Your task to perform on an android device: open app "Skype" Image 0: 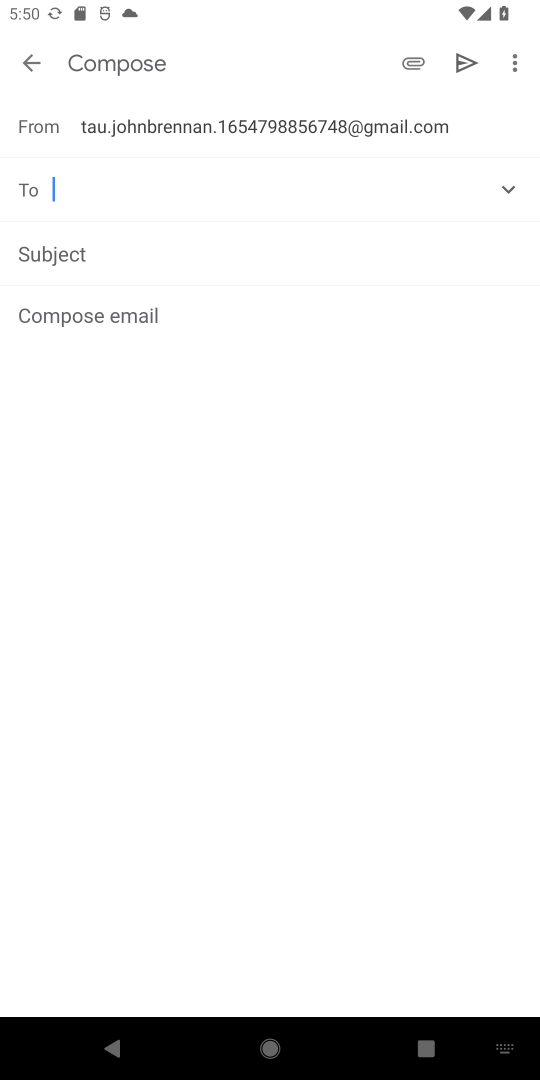
Step 0: press home button
Your task to perform on an android device: open app "Skype" Image 1: 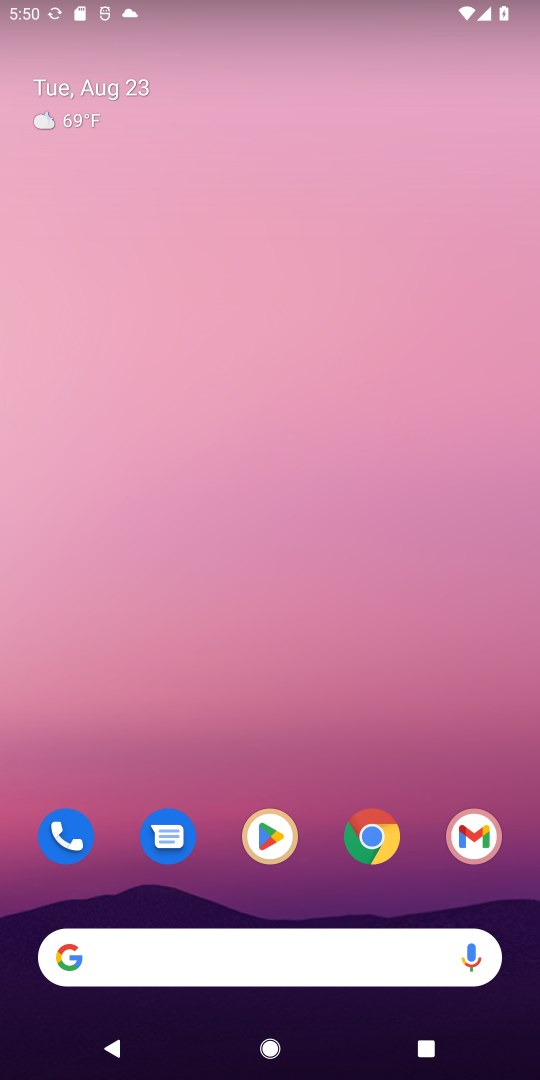
Step 1: click (271, 835)
Your task to perform on an android device: open app "Skype" Image 2: 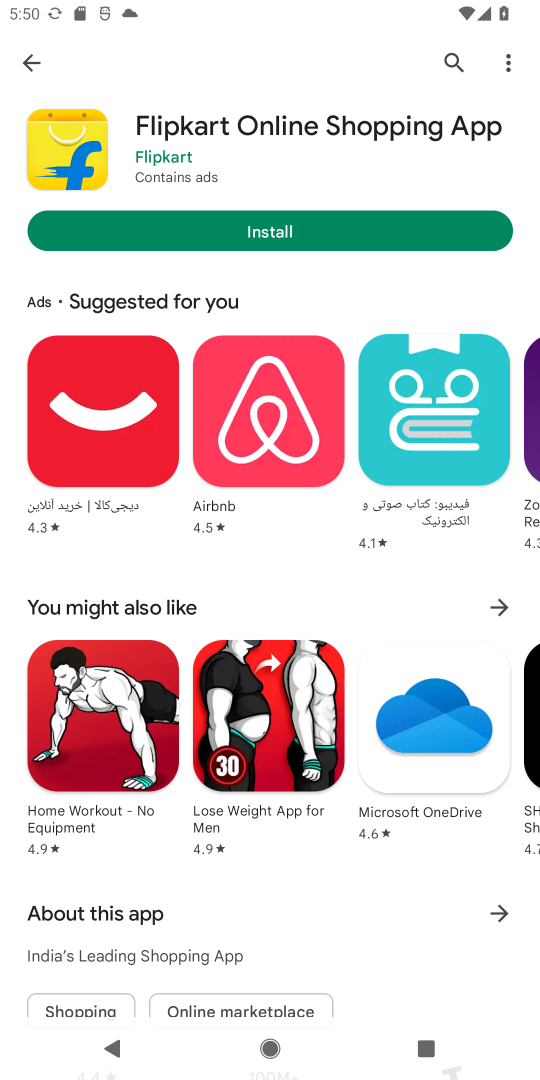
Step 2: click (448, 53)
Your task to perform on an android device: open app "Skype" Image 3: 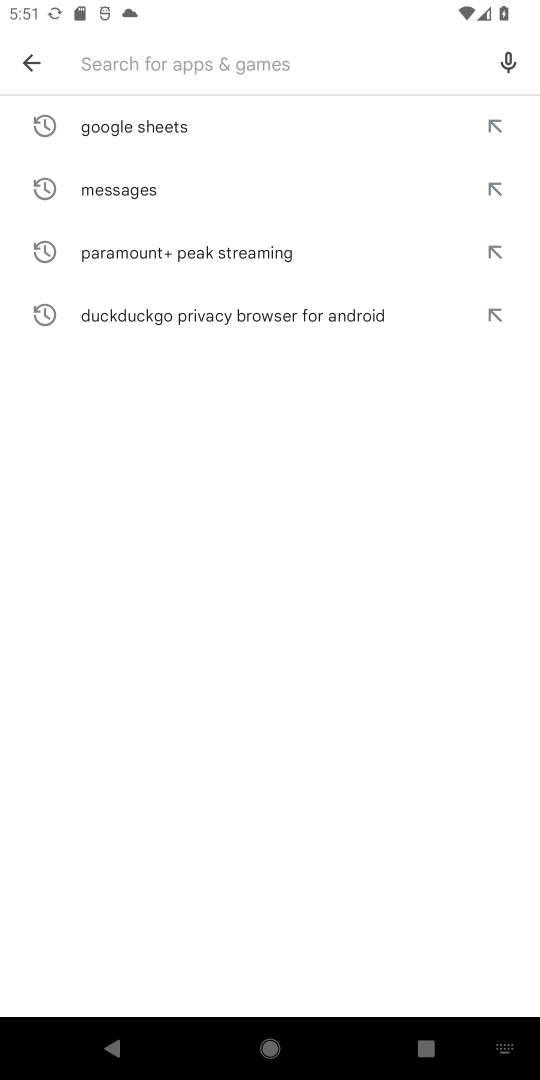
Step 3: type "Skype"
Your task to perform on an android device: open app "Skype" Image 4: 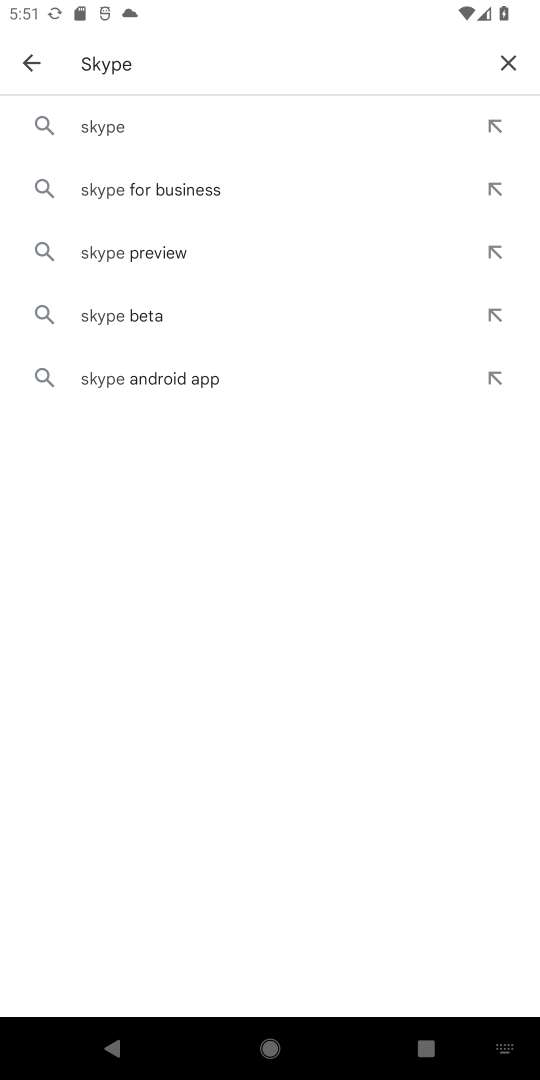
Step 4: click (105, 122)
Your task to perform on an android device: open app "Skype" Image 5: 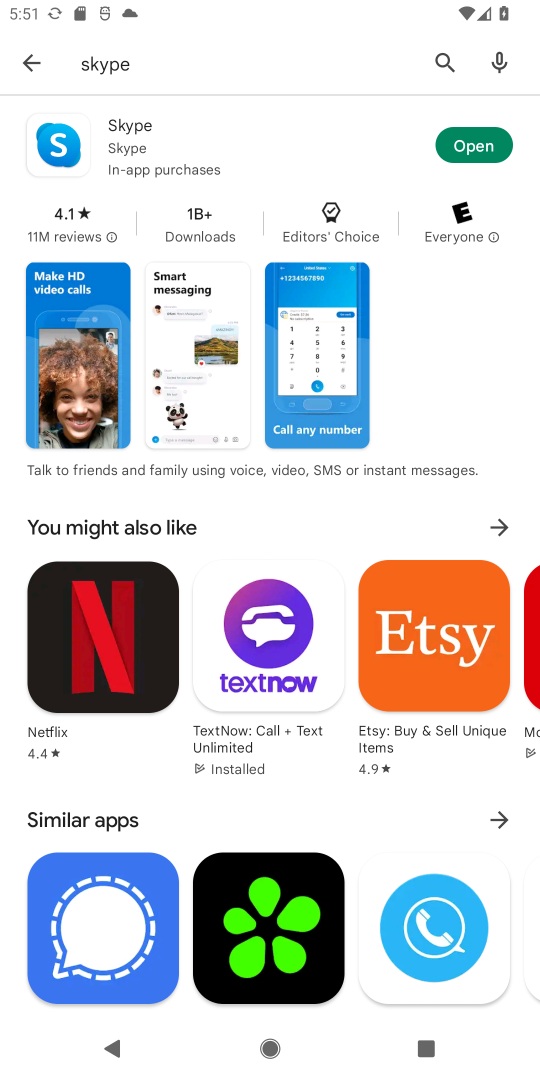
Step 5: click (474, 140)
Your task to perform on an android device: open app "Skype" Image 6: 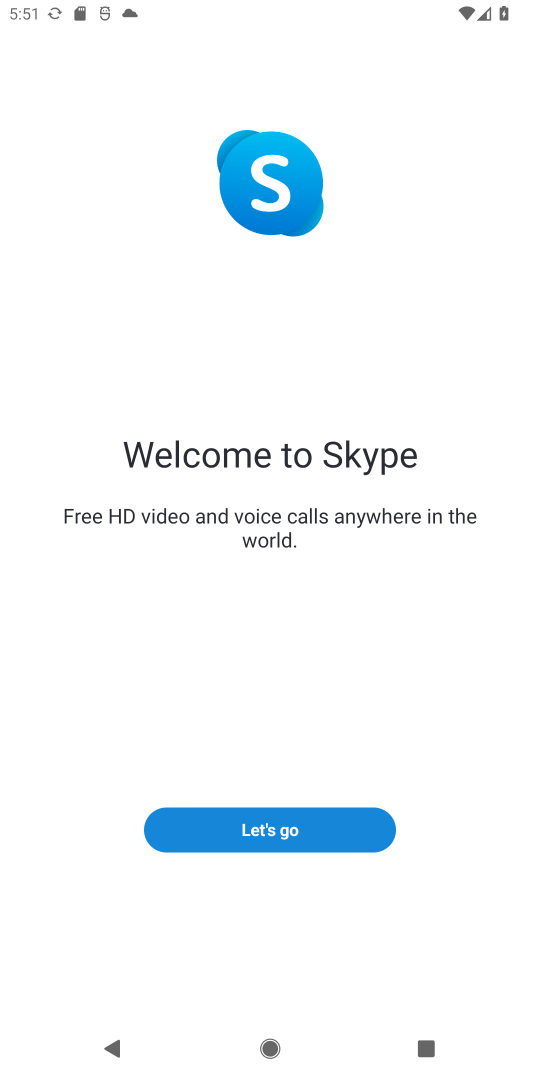
Step 6: task complete